Your task to perform on an android device: Check the news Image 0: 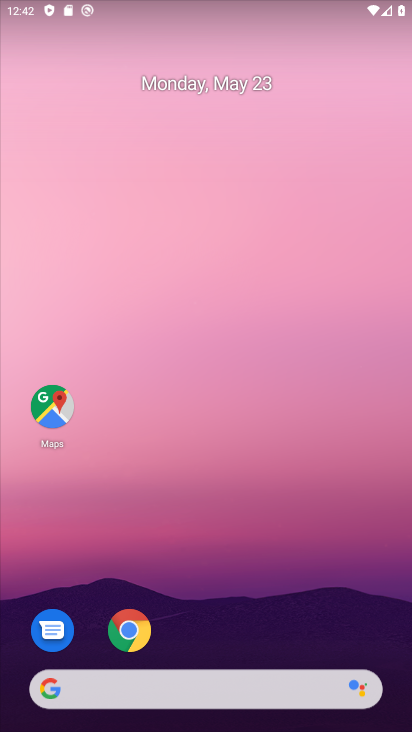
Step 0: drag from (261, 555) to (281, 184)
Your task to perform on an android device: Check the news Image 1: 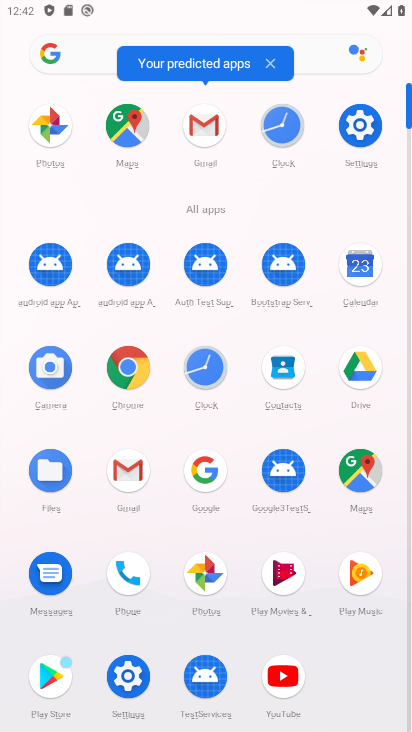
Step 1: click (138, 382)
Your task to perform on an android device: Check the news Image 2: 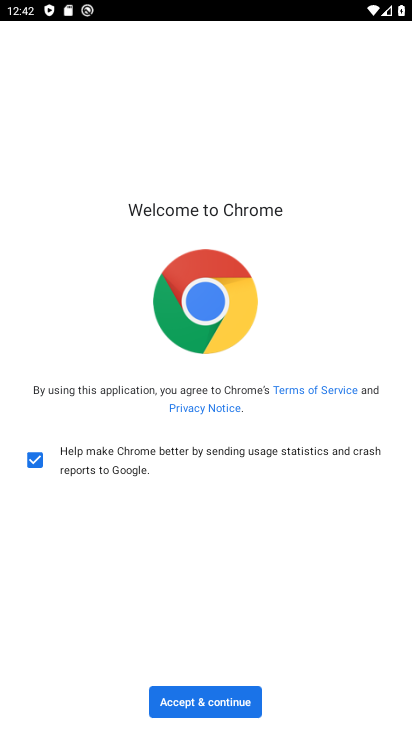
Step 2: click (217, 705)
Your task to perform on an android device: Check the news Image 3: 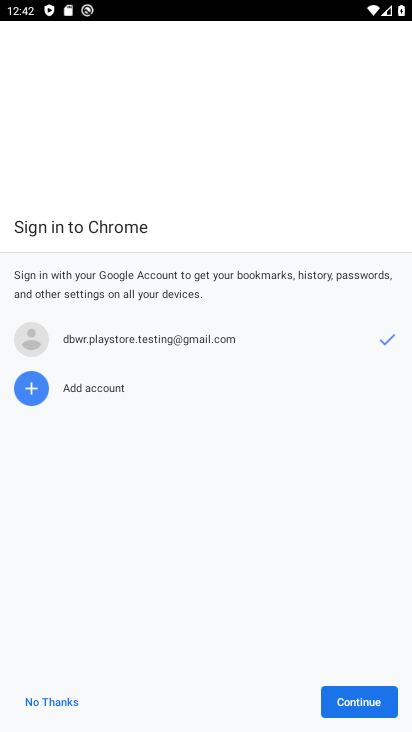
Step 3: click (372, 695)
Your task to perform on an android device: Check the news Image 4: 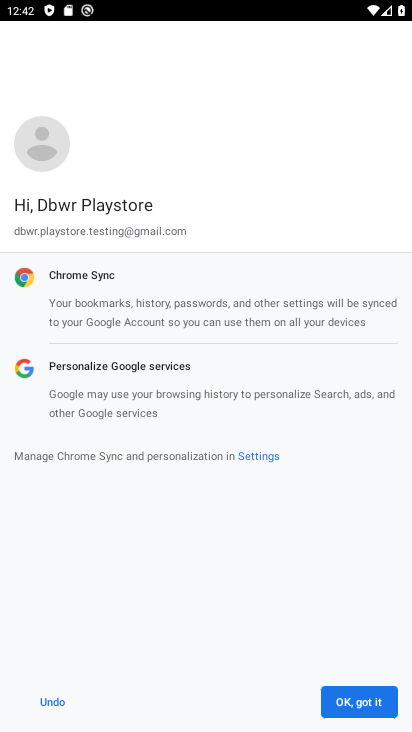
Step 4: click (378, 701)
Your task to perform on an android device: Check the news Image 5: 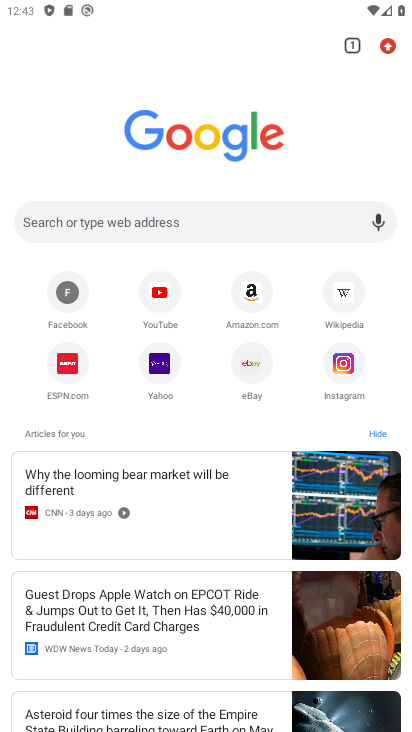
Step 5: type "check the news"
Your task to perform on an android device: Check the news Image 6: 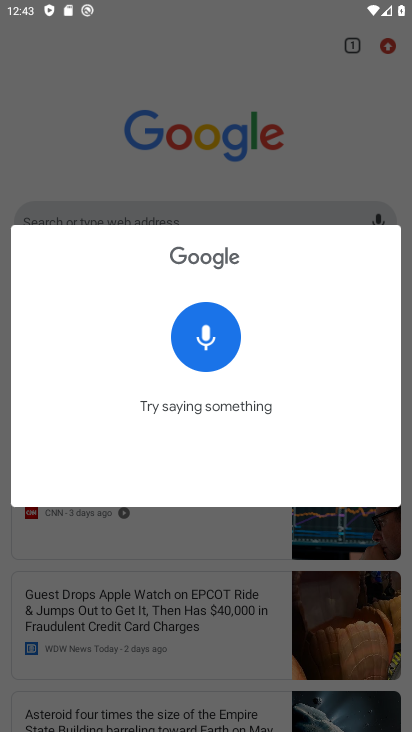
Step 6: click (134, 606)
Your task to perform on an android device: Check the news Image 7: 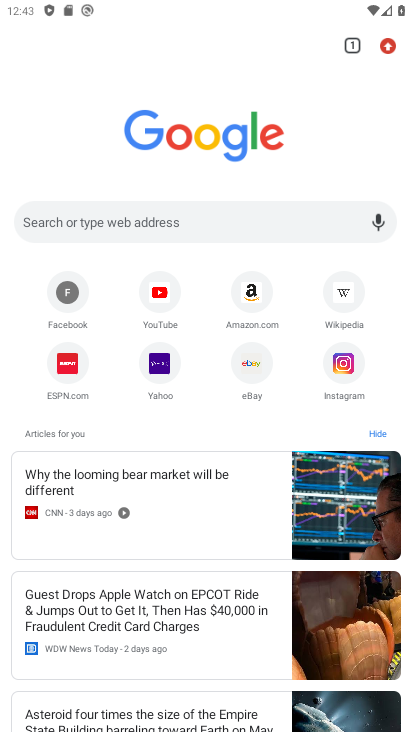
Step 7: click (134, 216)
Your task to perform on an android device: Check the news Image 8: 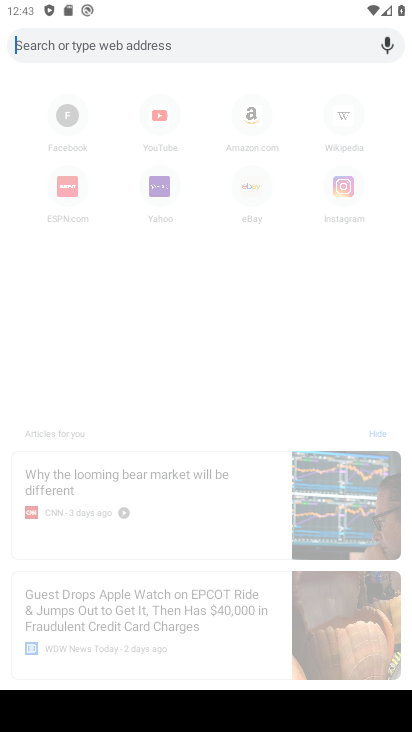
Step 8: type "check the news"
Your task to perform on an android device: Check the news Image 9: 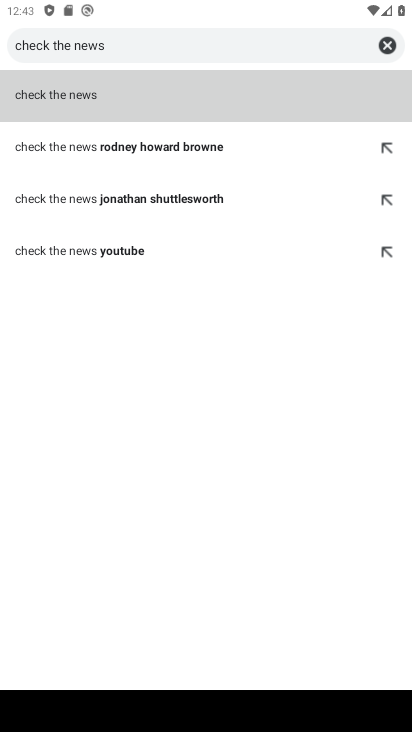
Step 9: click (123, 96)
Your task to perform on an android device: Check the news Image 10: 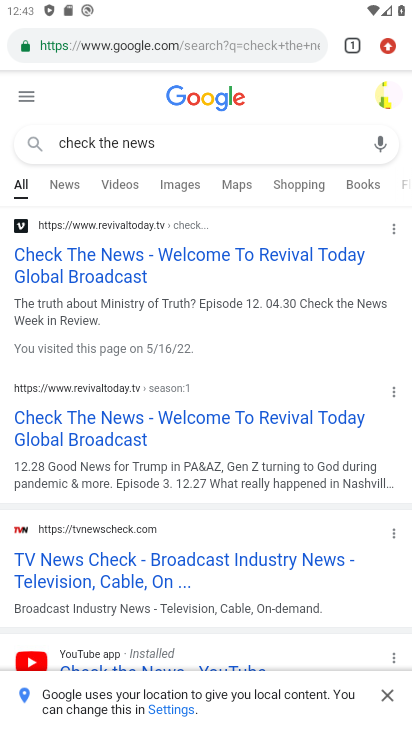
Step 10: task complete